Your task to perform on an android device: Open the stopwatch Image 0: 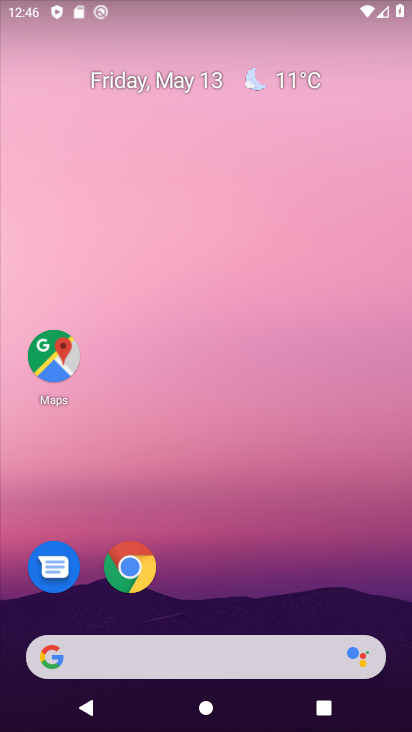
Step 0: drag from (211, 335) to (171, 28)
Your task to perform on an android device: Open the stopwatch Image 1: 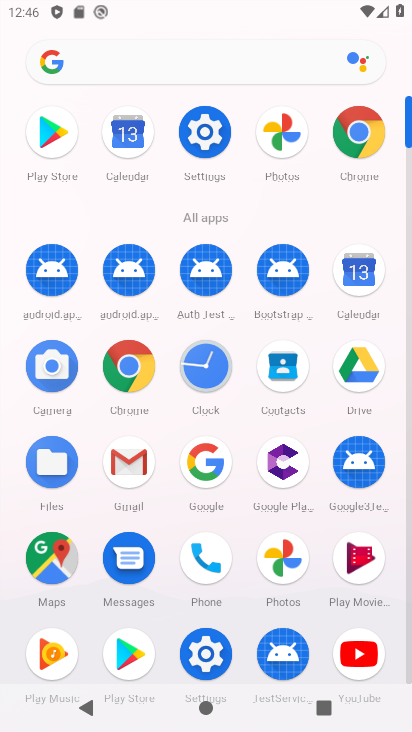
Step 1: click (199, 370)
Your task to perform on an android device: Open the stopwatch Image 2: 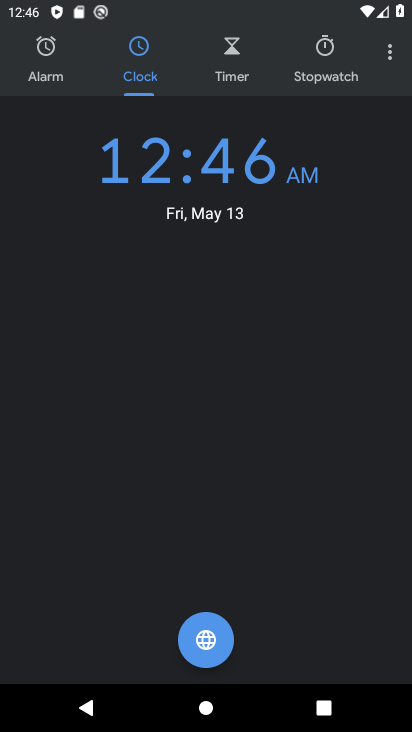
Step 2: click (329, 31)
Your task to perform on an android device: Open the stopwatch Image 3: 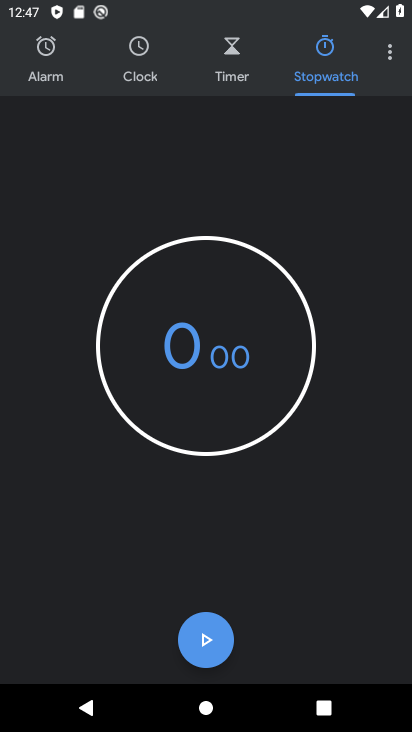
Step 3: task complete